Your task to perform on an android device: Go to eBay Image 0: 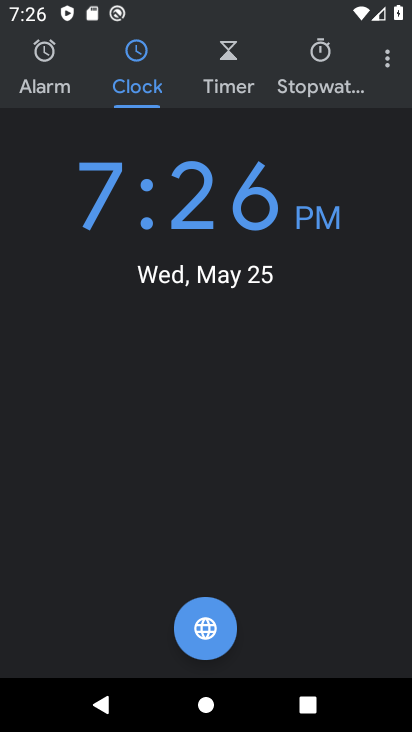
Step 0: press home button
Your task to perform on an android device: Go to eBay Image 1: 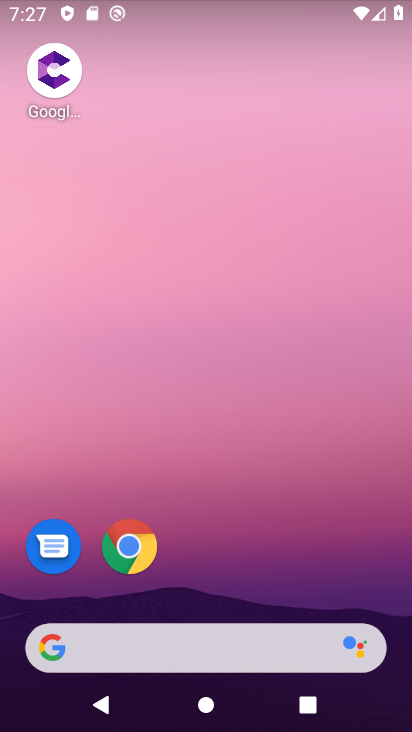
Step 1: drag from (378, 581) to (392, 130)
Your task to perform on an android device: Go to eBay Image 2: 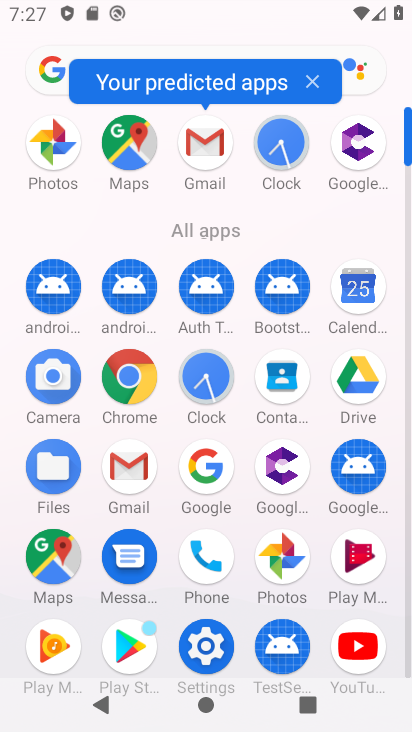
Step 2: click (134, 372)
Your task to perform on an android device: Go to eBay Image 3: 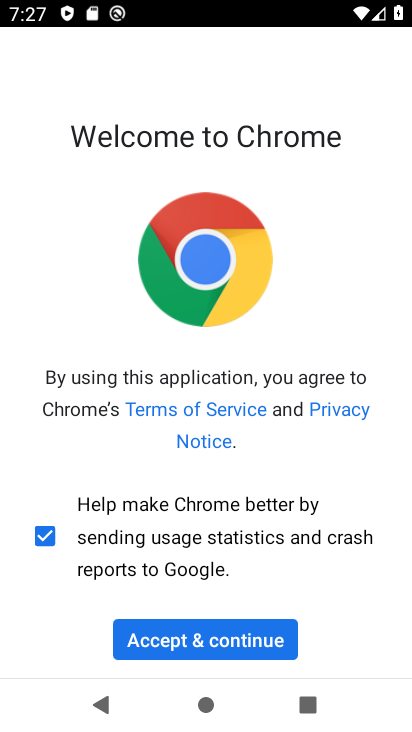
Step 3: click (199, 633)
Your task to perform on an android device: Go to eBay Image 4: 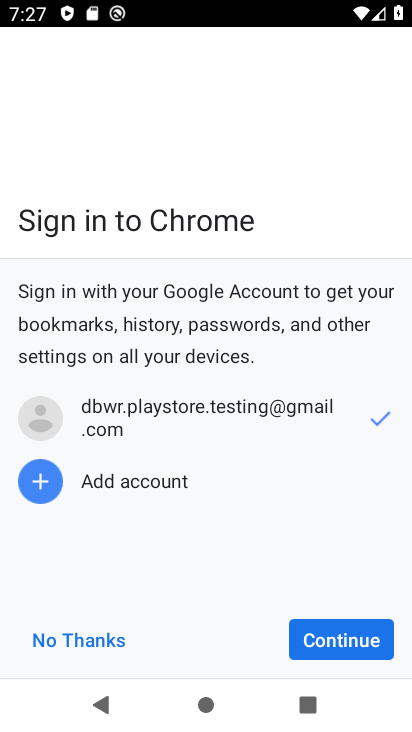
Step 4: click (321, 644)
Your task to perform on an android device: Go to eBay Image 5: 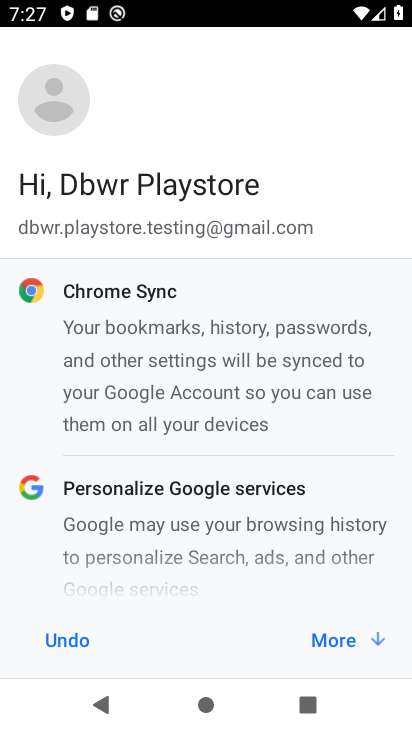
Step 5: click (340, 636)
Your task to perform on an android device: Go to eBay Image 6: 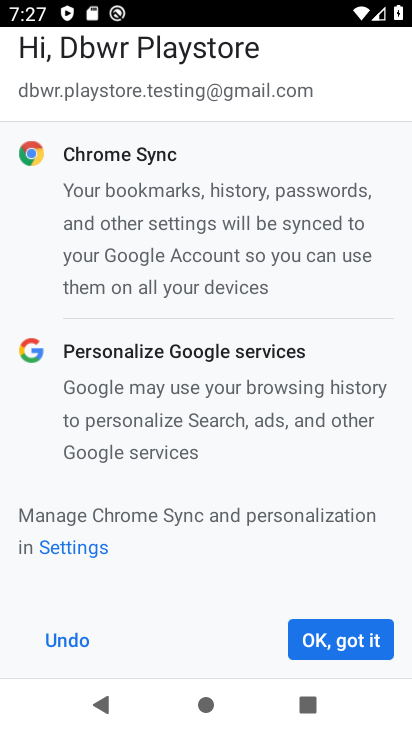
Step 6: click (340, 636)
Your task to perform on an android device: Go to eBay Image 7: 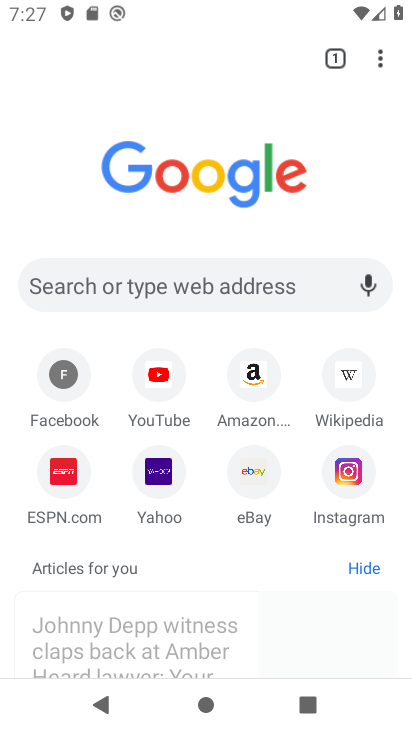
Step 7: click (276, 290)
Your task to perform on an android device: Go to eBay Image 8: 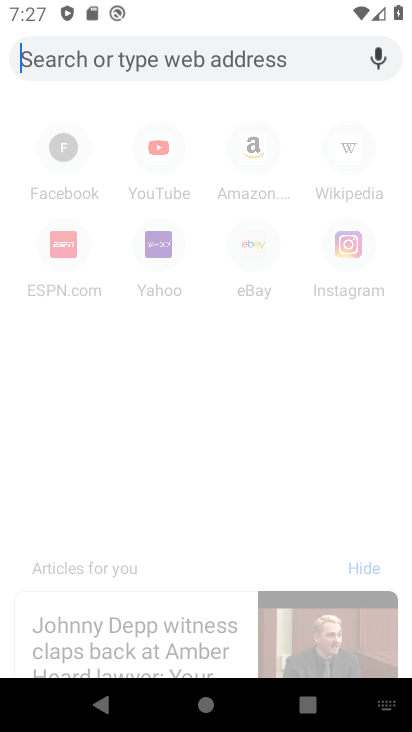
Step 8: type "ebay"
Your task to perform on an android device: Go to eBay Image 9: 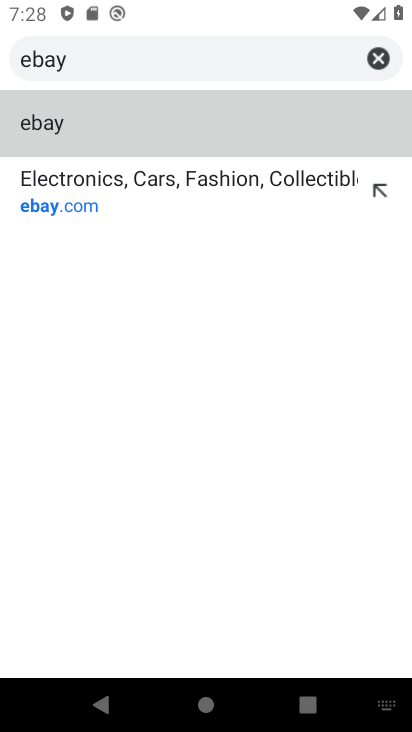
Step 9: click (67, 189)
Your task to perform on an android device: Go to eBay Image 10: 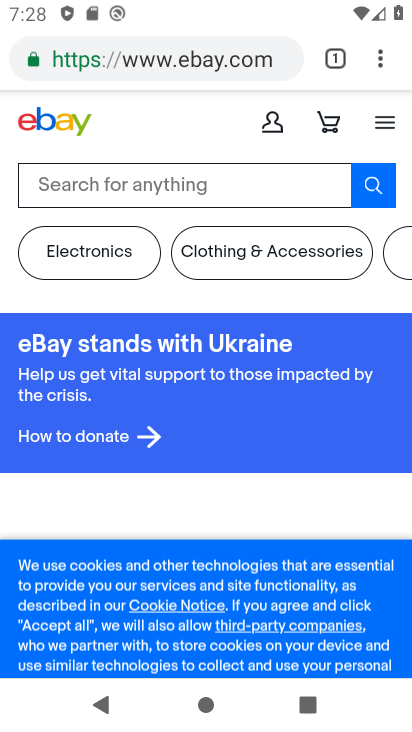
Step 10: task complete